Your task to perform on an android device: Go to sound settings Image 0: 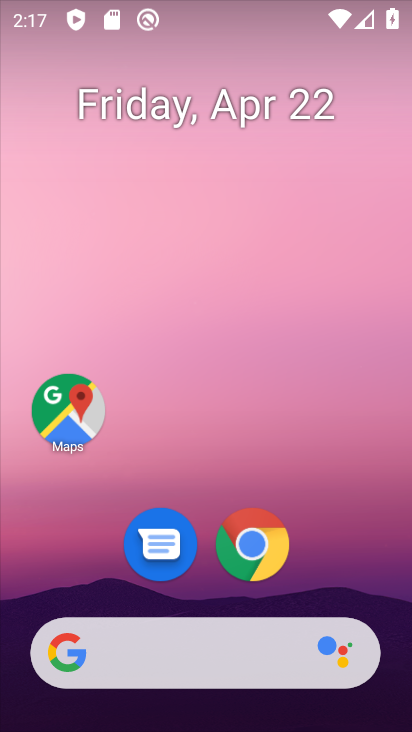
Step 0: drag from (215, 528) to (300, 37)
Your task to perform on an android device: Go to sound settings Image 1: 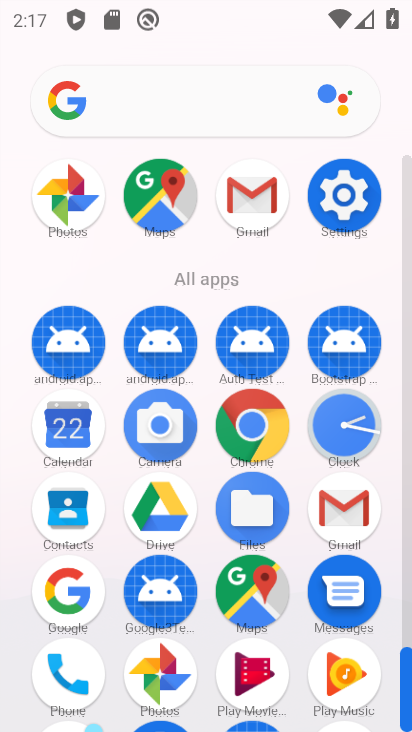
Step 1: click (336, 210)
Your task to perform on an android device: Go to sound settings Image 2: 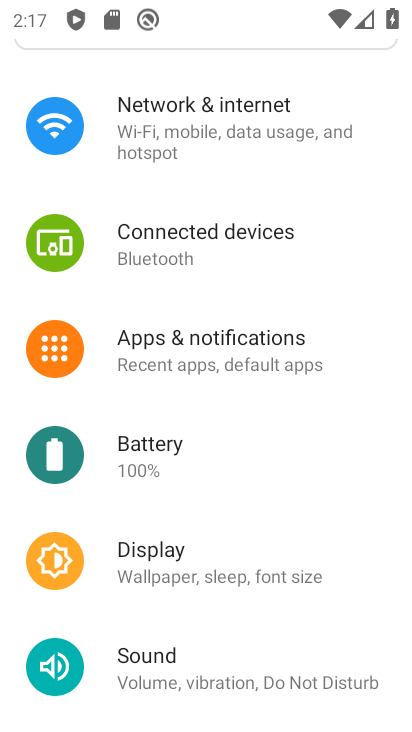
Step 2: click (138, 650)
Your task to perform on an android device: Go to sound settings Image 3: 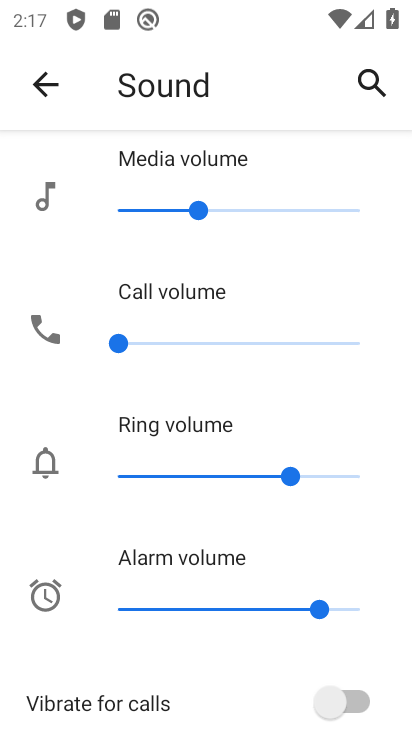
Step 3: task complete